Your task to perform on an android device: Open the stopwatch Image 0: 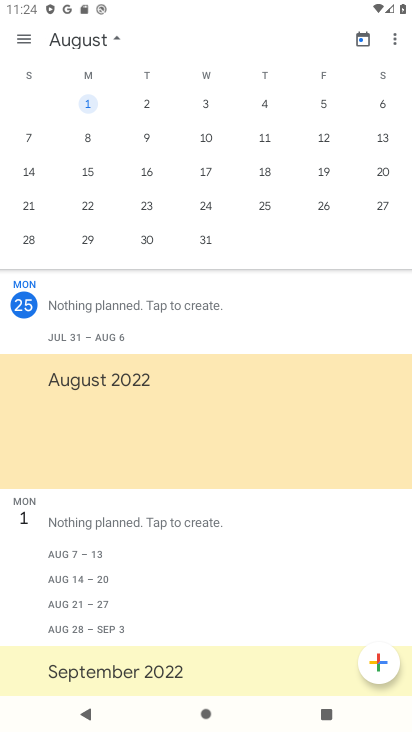
Step 0: press home button
Your task to perform on an android device: Open the stopwatch Image 1: 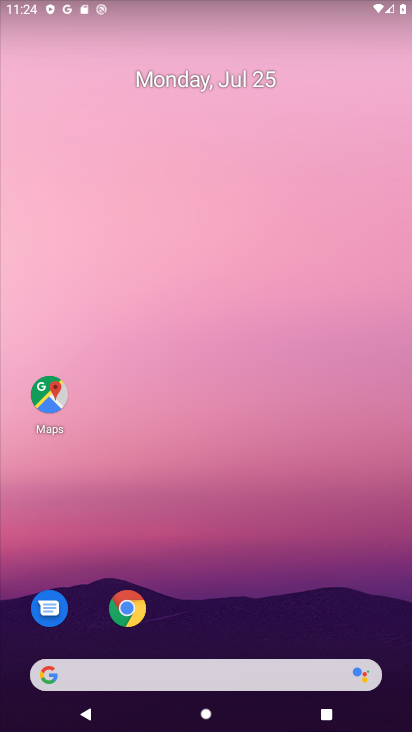
Step 1: drag from (187, 642) to (306, 54)
Your task to perform on an android device: Open the stopwatch Image 2: 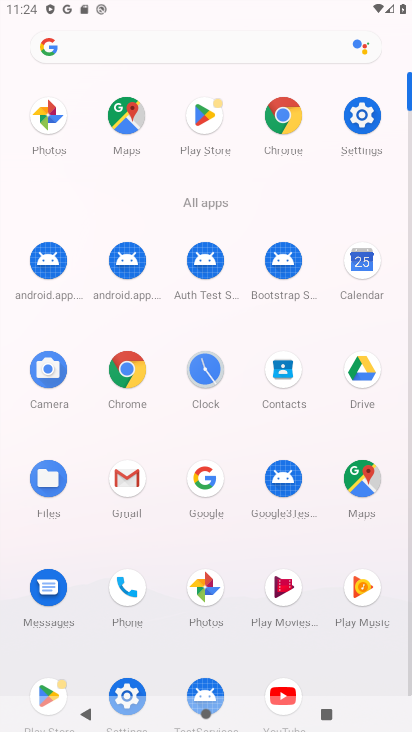
Step 2: click (196, 370)
Your task to perform on an android device: Open the stopwatch Image 3: 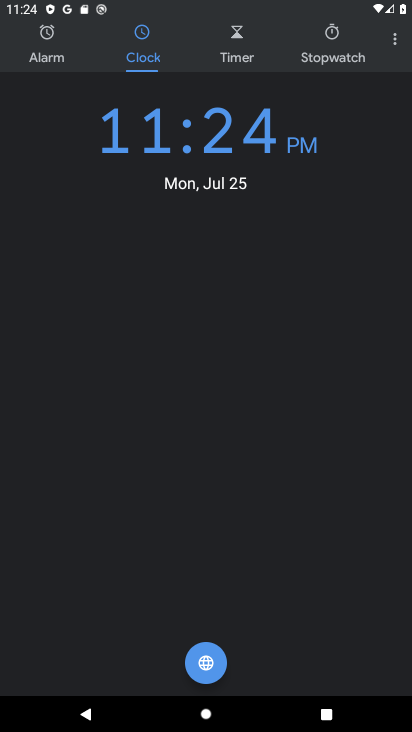
Step 3: click (342, 34)
Your task to perform on an android device: Open the stopwatch Image 4: 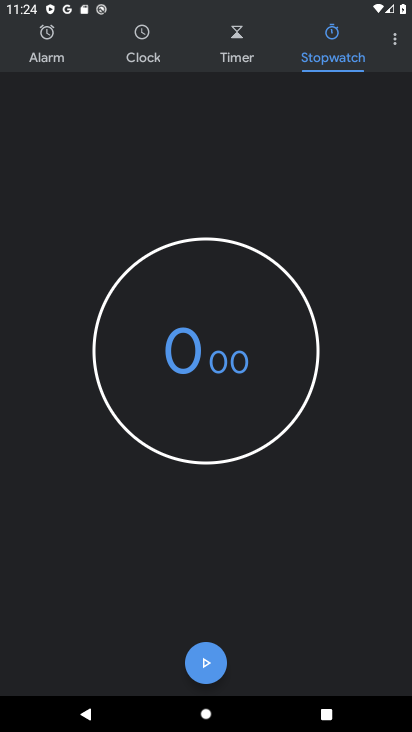
Step 4: task complete